Your task to perform on an android device: turn off notifications in google photos Image 0: 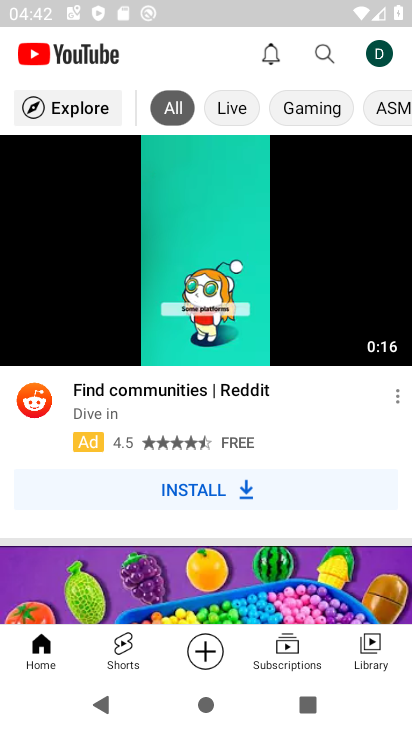
Step 0: press home button
Your task to perform on an android device: turn off notifications in google photos Image 1: 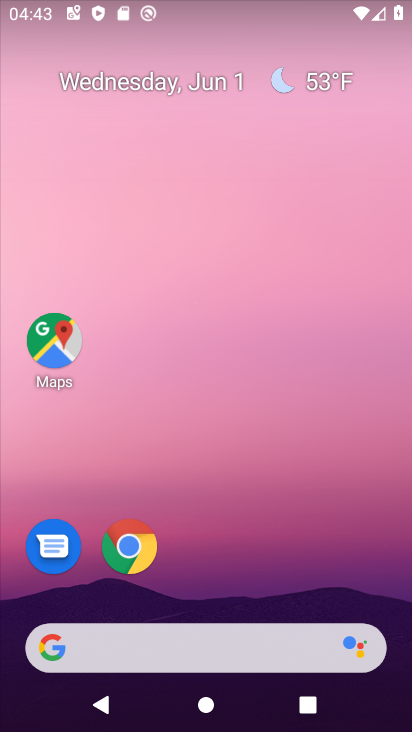
Step 1: click (207, 71)
Your task to perform on an android device: turn off notifications in google photos Image 2: 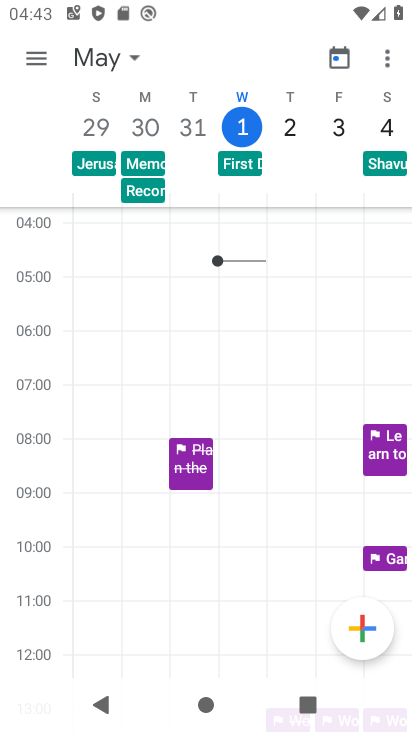
Step 2: drag from (206, 383) to (206, 266)
Your task to perform on an android device: turn off notifications in google photos Image 3: 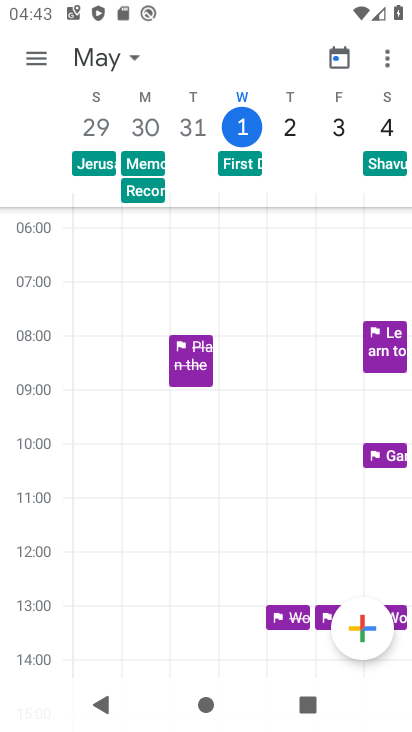
Step 3: press home button
Your task to perform on an android device: turn off notifications in google photos Image 4: 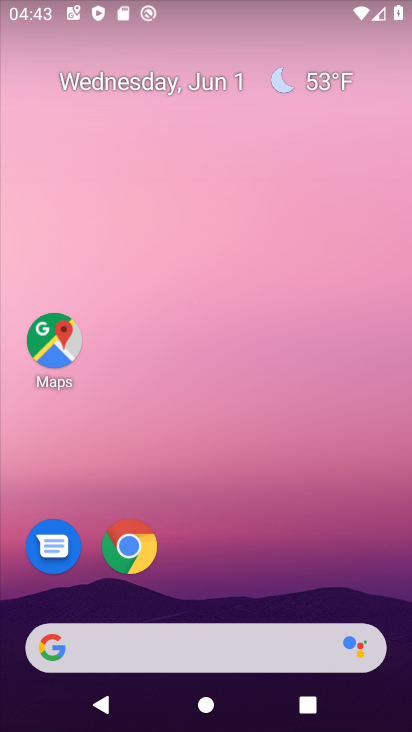
Step 4: drag from (254, 530) to (208, 169)
Your task to perform on an android device: turn off notifications in google photos Image 5: 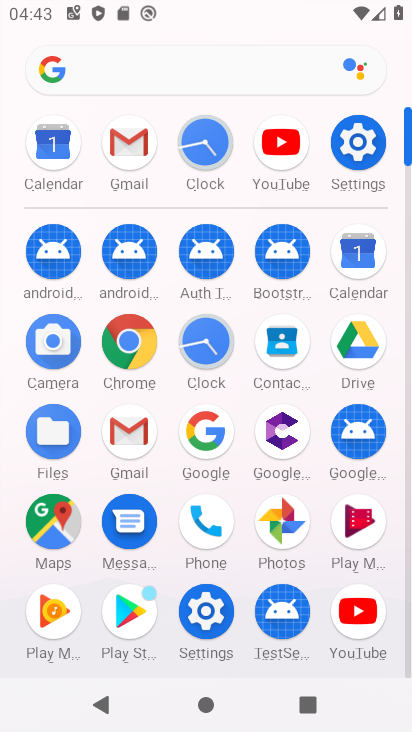
Step 5: click (273, 516)
Your task to perform on an android device: turn off notifications in google photos Image 6: 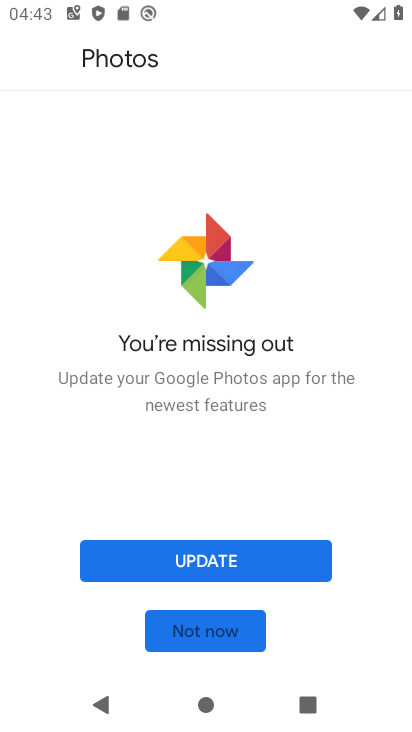
Step 6: click (204, 564)
Your task to perform on an android device: turn off notifications in google photos Image 7: 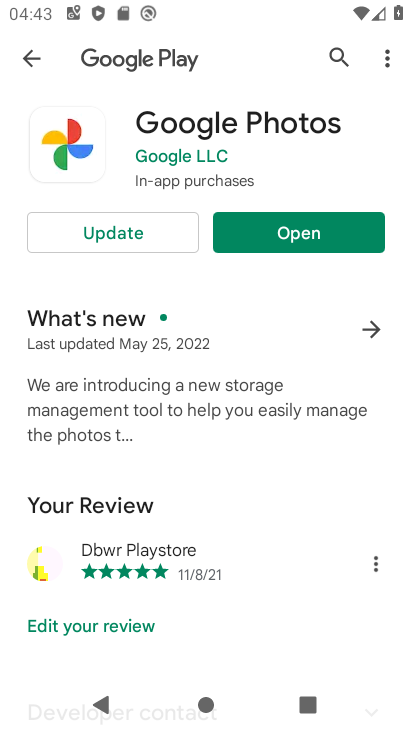
Step 7: click (145, 238)
Your task to perform on an android device: turn off notifications in google photos Image 8: 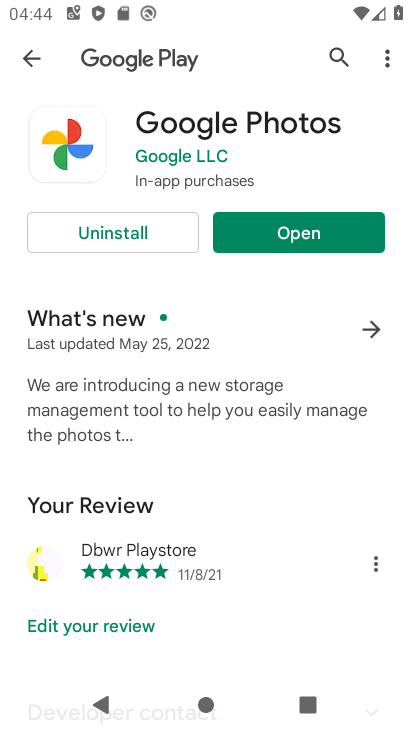
Step 8: click (325, 229)
Your task to perform on an android device: turn off notifications in google photos Image 9: 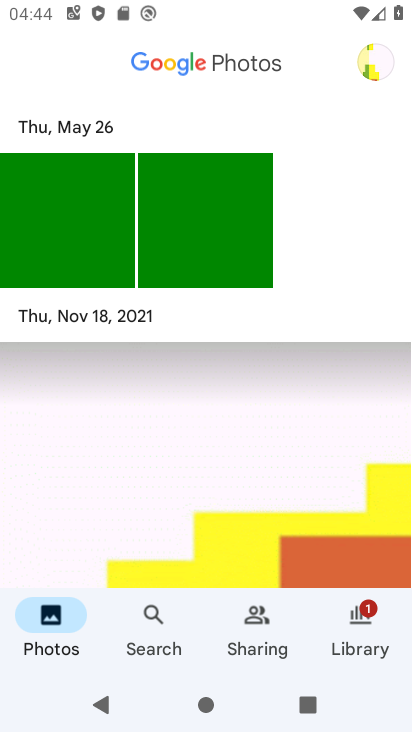
Step 9: click (353, 625)
Your task to perform on an android device: turn off notifications in google photos Image 10: 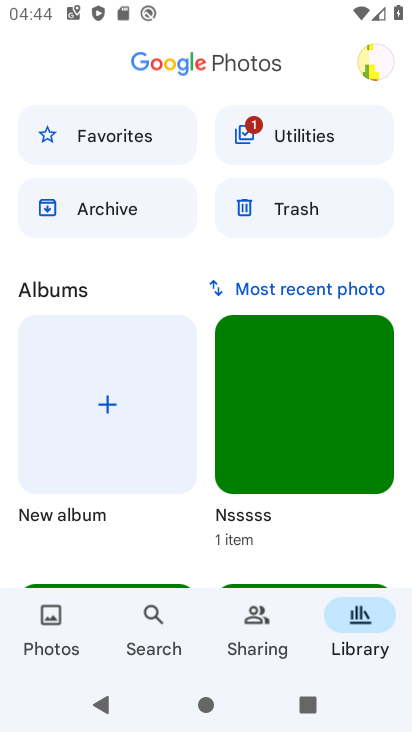
Step 10: click (369, 69)
Your task to perform on an android device: turn off notifications in google photos Image 11: 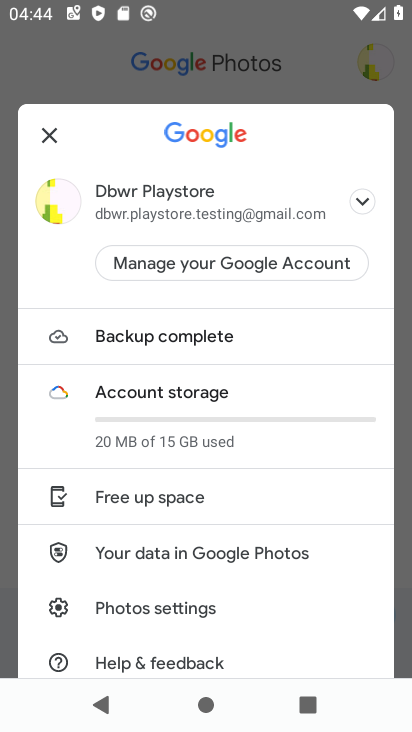
Step 11: click (148, 601)
Your task to perform on an android device: turn off notifications in google photos Image 12: 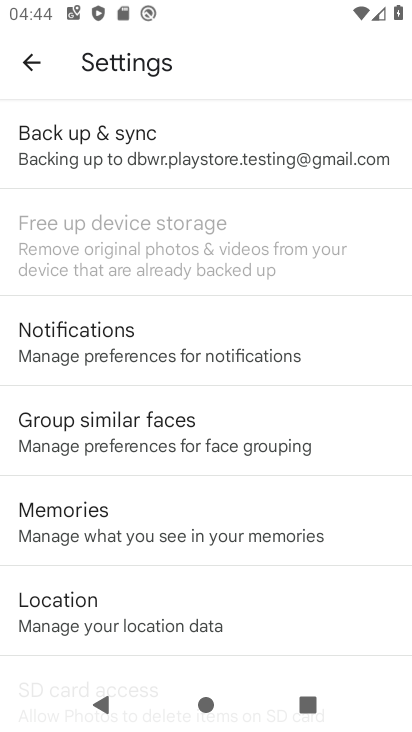
Step 12: click (97, 327)
Your task to perform on an android device: turn off notifications in google photos Image 13: 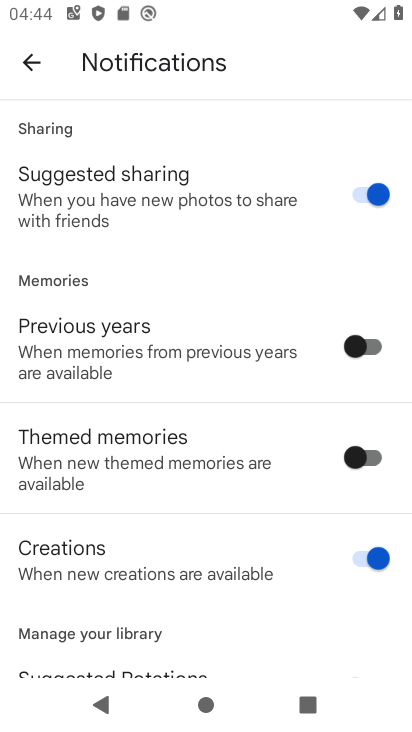
Step 13: drag from (163, 500) to (176, 230)
Your task to perform on an android device: turn off notifications in google photos Image 14: 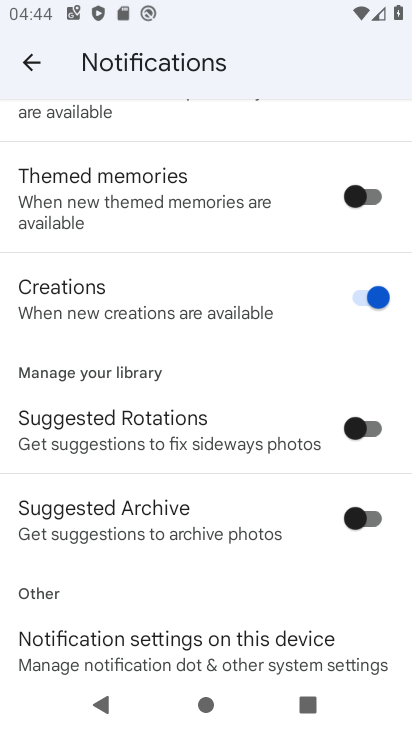
Step 14: drag from (175, 448) to (147, 156)
Your task to perform on an android device: turn off notifications in google photos Image 15: 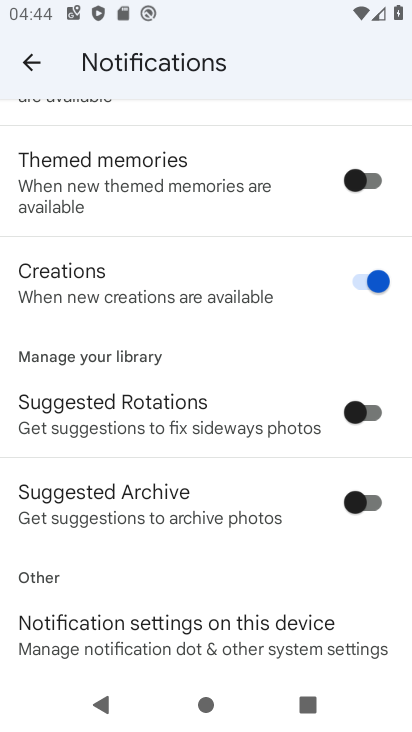
Step 15: drag from (173, 581) to (173, 147)
Your task to perform on an android device: turn off notifications in google photos Image 16: 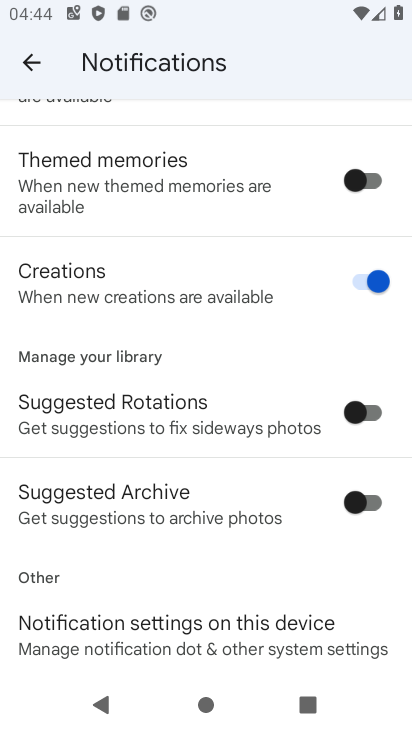
Step 16: click (106, 610)
Your task to perform on an android device: turn off notifications in google photos Image 17: 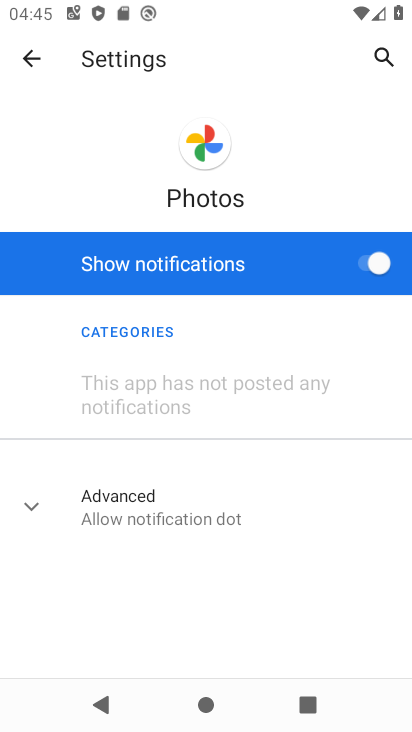
Step 17: click (370, 261)
Your task to perform on an android device: turn off notifications in google photos Image 18: 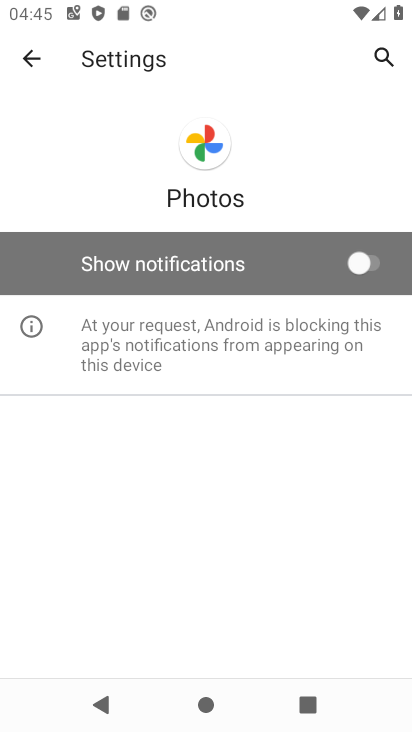
Step 18: task complete